Your task to perform on an android device: Go to privacy settings Image 0: 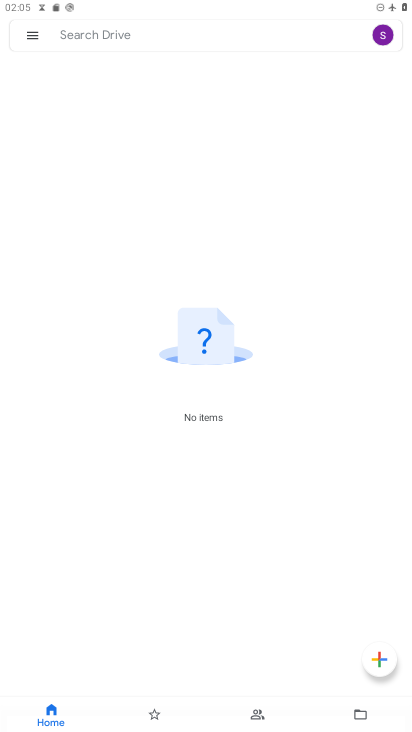
Step 0: press home button
Your task to perform on an android device: Go to privacy settings Image 1: 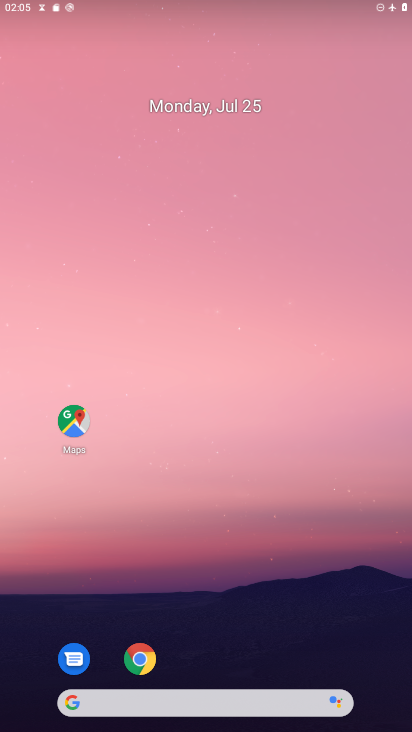
Step 1: drag from (213, 603) to (304, 24)
Your task to perform on an android device: Go to privacy settings Image 2: 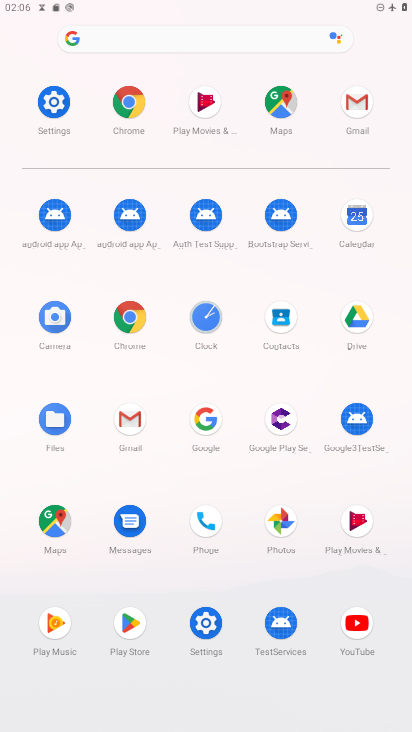
Step 2: click (54, 95)
Your task to perform on an android device: Go to privacy settings Image 3: 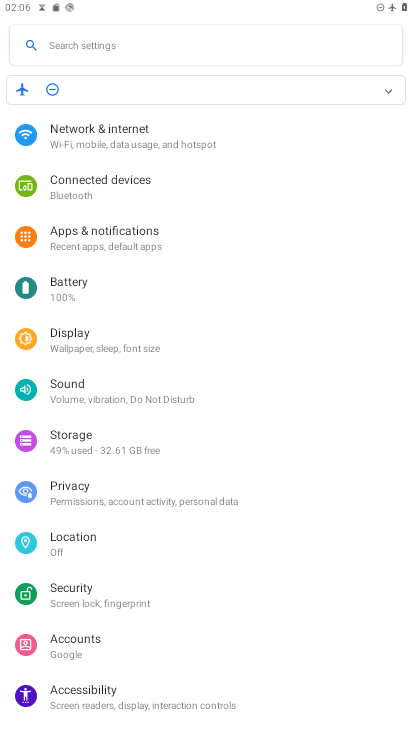
Step 3: click (101, 504)
Your task to perform on an android device: Go to privacy settings Image 4: 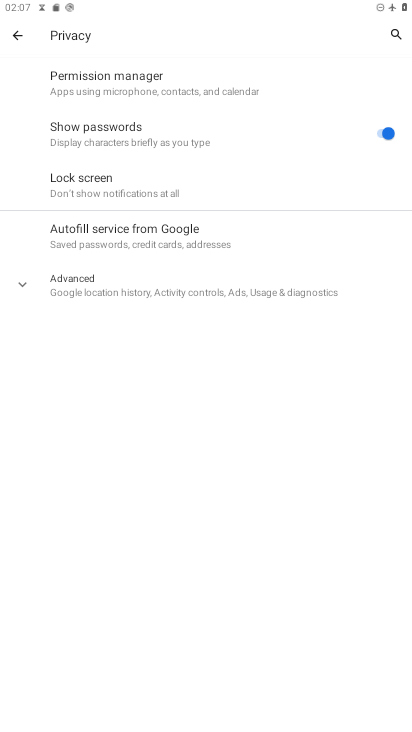
Step 4: task complete